Your task to perform on an android device: Go to settings Image 0: 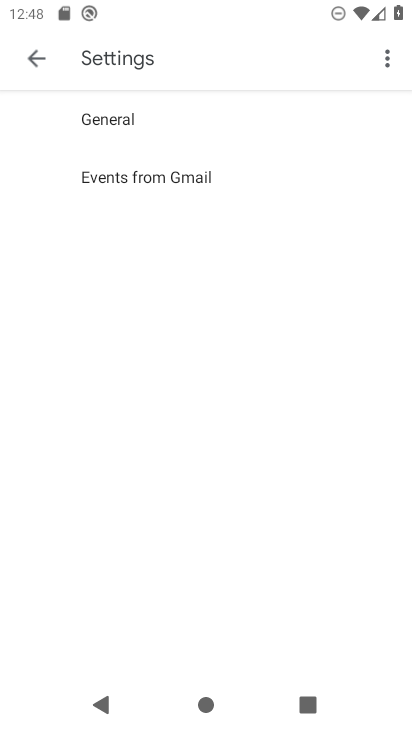
Step 0: press back button
Your task to perform on an android device: Go to settings Image 1: 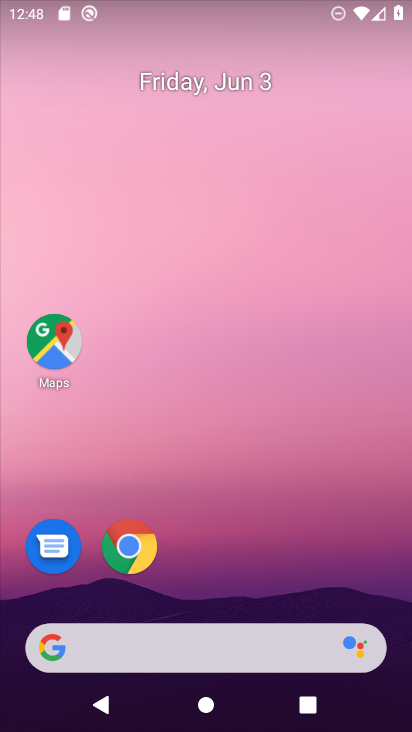
Step 1: drag from (277, 524) to (182, 116)
Your task to perform on an android device: Go to settings Image 2: 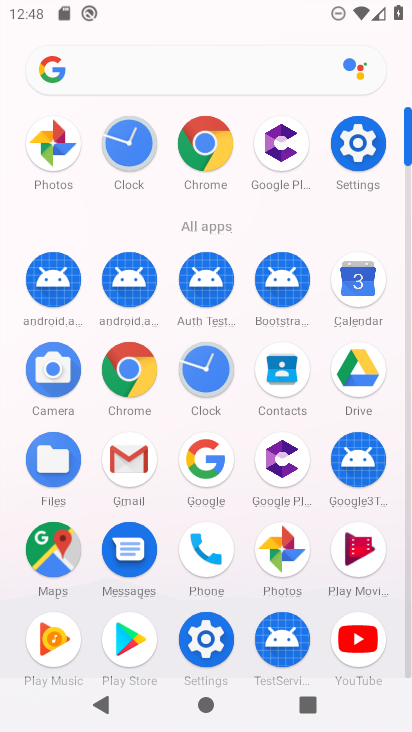
Step 2: click (358, 142)
Your task to perform on an android device: Go to settings Image 3: 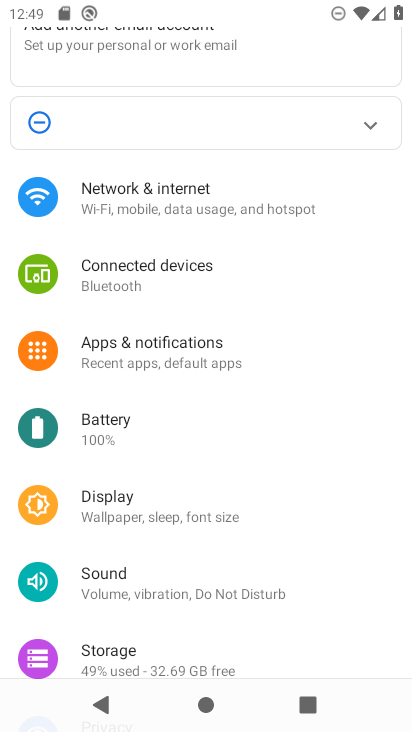
Step 3: task complete